Your task to perform on an android device: create a new album in the google photos Image 0: 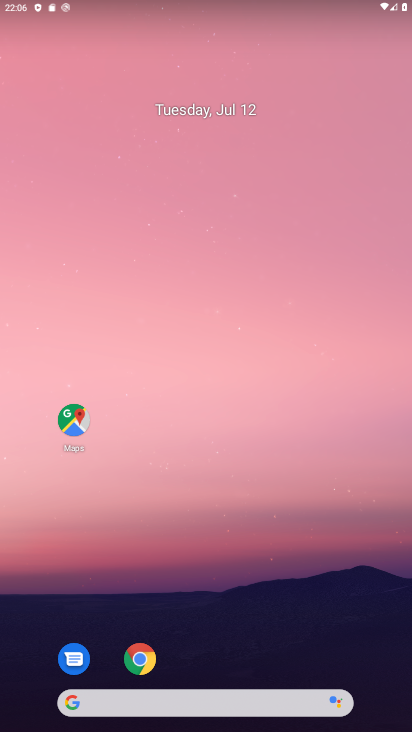
Step 0: drag from (311, 590) to (261, 171)
Your task to perform on an android device: create a new album in the google photos Image 1: 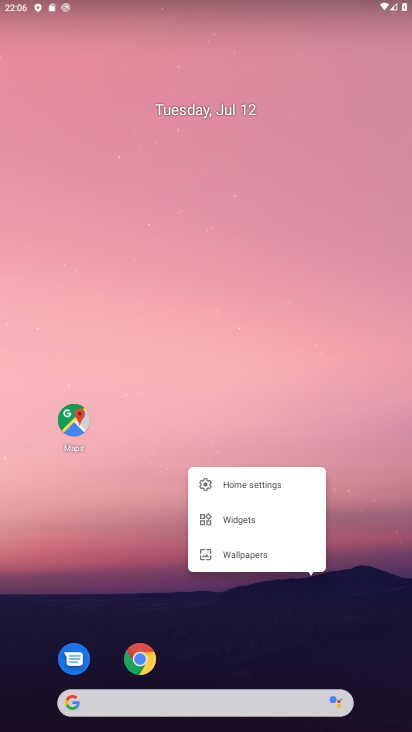
Step 1: click (230, 649)
Your task to perform on an android device: create a new album in the google photos Image 2: 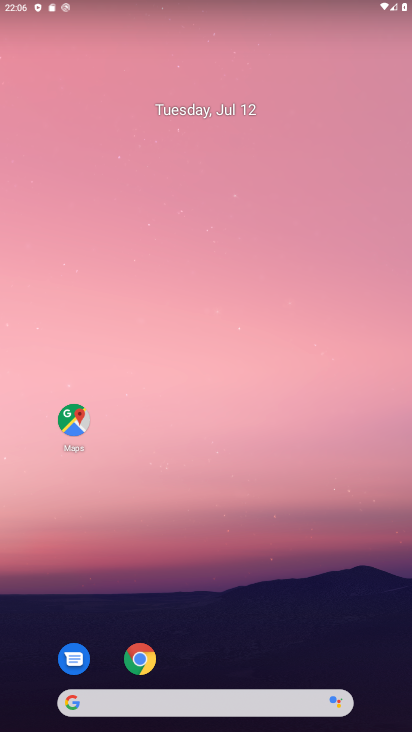
Step 2: click (231, 643)
Your task to perform on an android device: create a new album in the google photos Image 3: 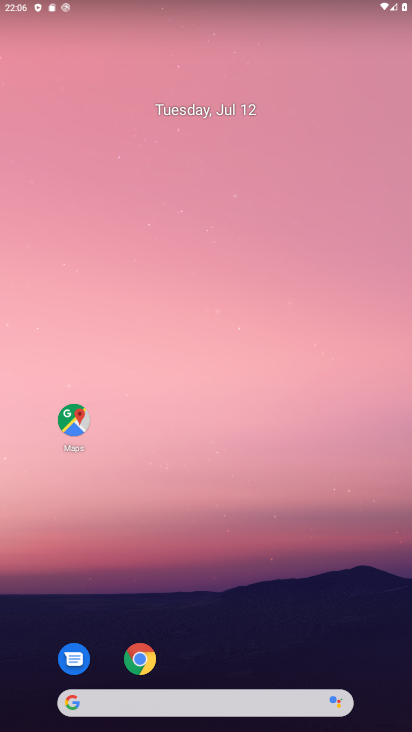
Step 3: drag from (231, 647) to (171, 166)
Your task to perform on an android device: create a new album in the google photos Image 4: 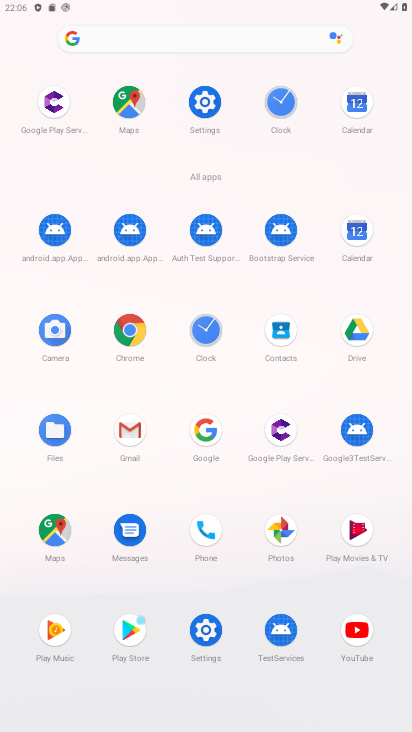
Step 4: click (196, 304)
Your task to perform on an android device: create a new album in the google photos Image 5: 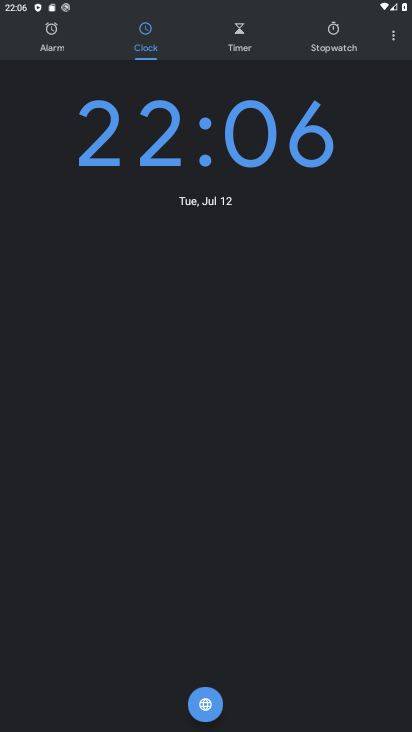
Step 5: press home button
Your task to perform on an android device: create a new album in the google photos Image 6: 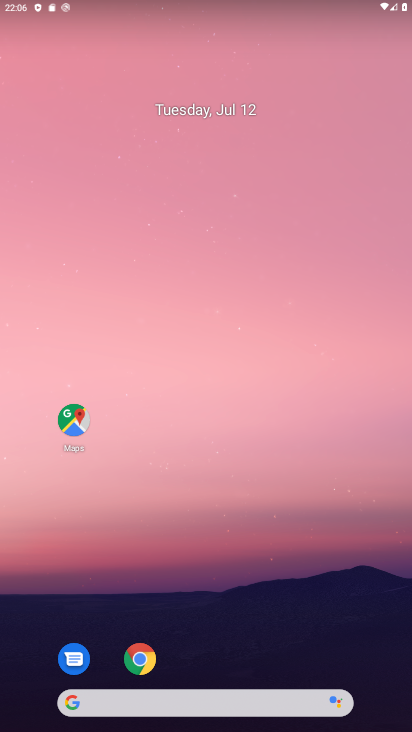
Step 6: press home button
Your task to perform on an android device: create a new album in the google photos Image 7: 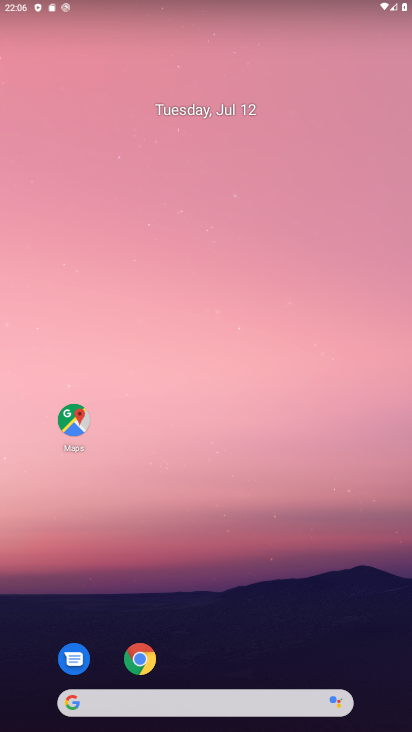
Step 7: click (269, 227)
Your task to perform on an android device: create a new album in the google photos Image 8: 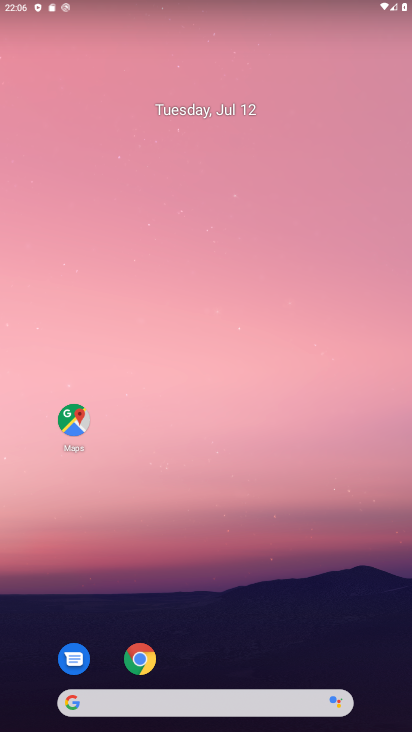
Step 8: drag from (188, 686) to (232, 226)
Your task to perform on an android device: create a new album in the google photos Image 9: 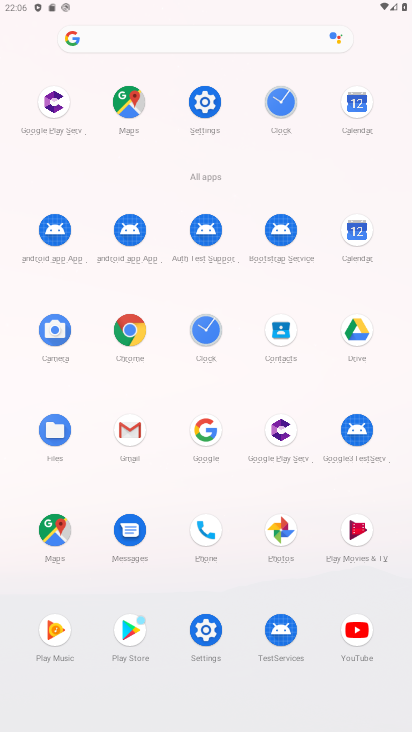
Step 9: click (276, 532)
Your task to perform on an android device: create a new album in the google photos Image 10: 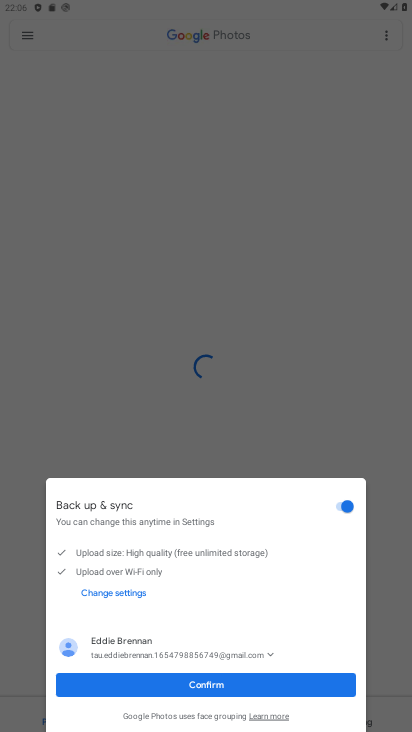
Step 10: click (270, 683)
Your task to perform on an android device: create a new album in the google photos Image 11: 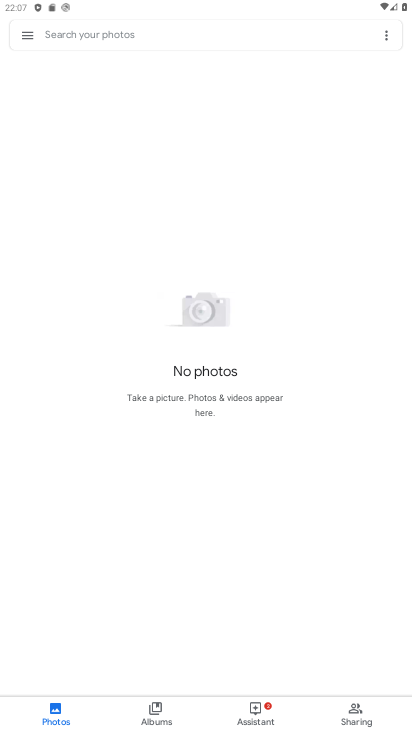
Step 11: task complete